Your task to perform on an android device: toggle priority inbox in the gmail app Image 0: 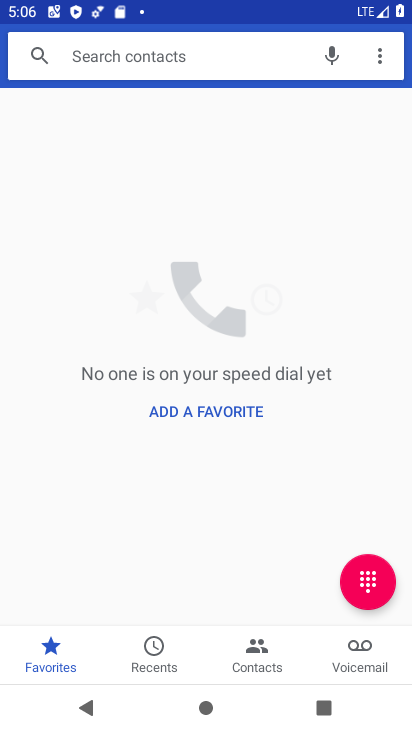
Step 0: press back button
Your task to perform on an android device: toggle priority inbox in the gmail app Image 1: 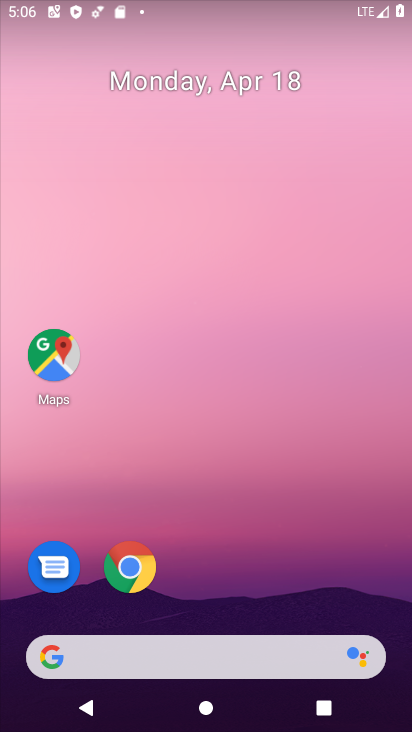
Step 1: drag from (306, 543) to (256, 0)
Your task to perform on an android device: toggle priority inbox in the gmail app Image 2: 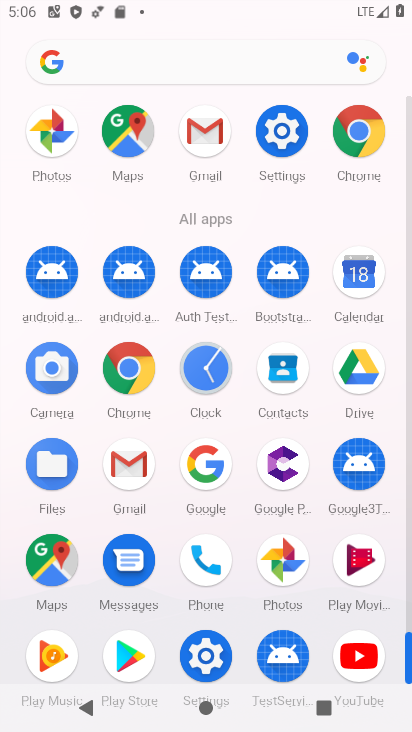
Step 2: click (208, 122)
Your task to perform on an android device: toggle priority inbox in the gmail app Image 3: 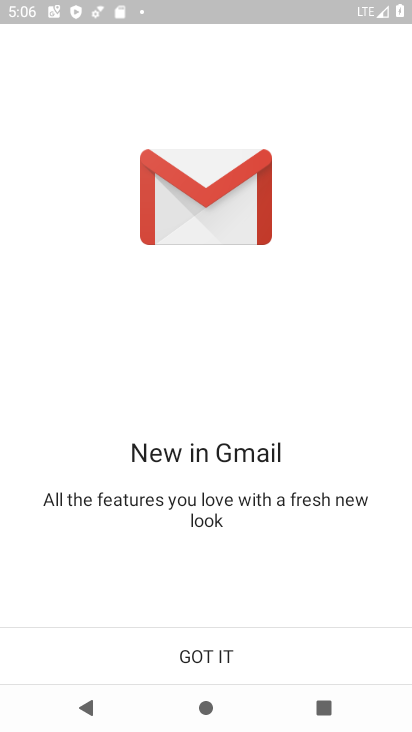
Step 3: click (185, 670)
Your task to perform on an android device: toggle priority inbox in the gmail app Image 4: 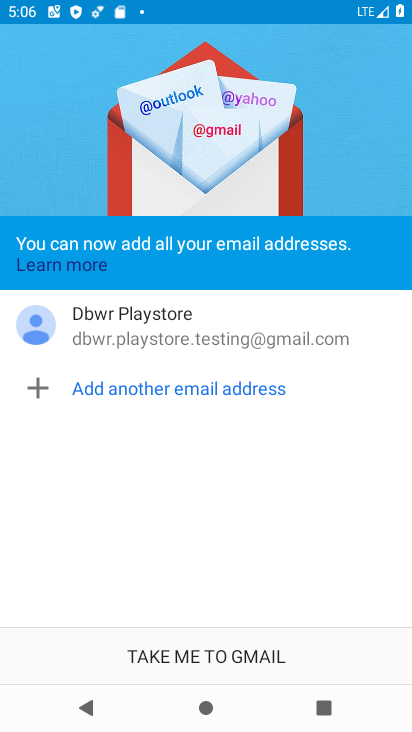
Step 4: click (207, 653)
Your task to perform on an android device: toggle priority inbox in the gmail app Image 5: 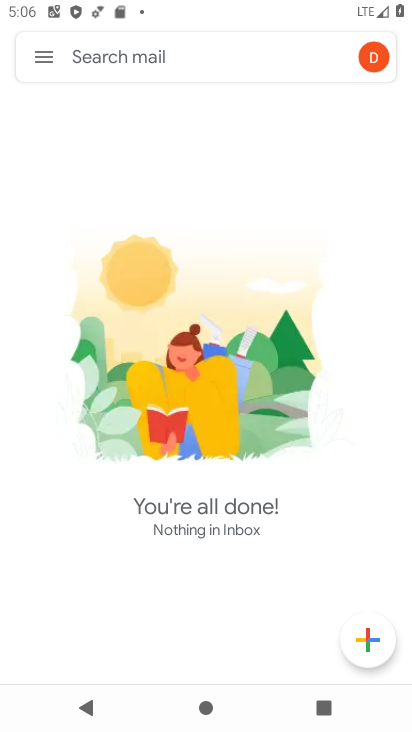
Step 5: click (50, 57)
Your task to perform on an android device: toggle priority inbox in the gmail app Image 6: 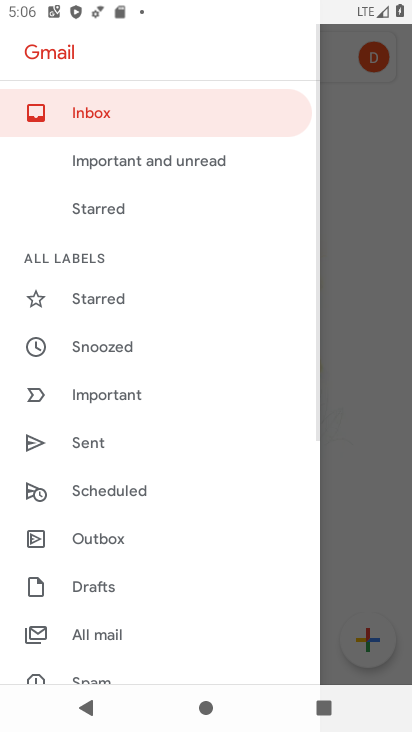
Step 6: drag from (146, 497) to (165, 136)
Your task to perform on an android device: toggle priority inbox in the gmail app Image 7: 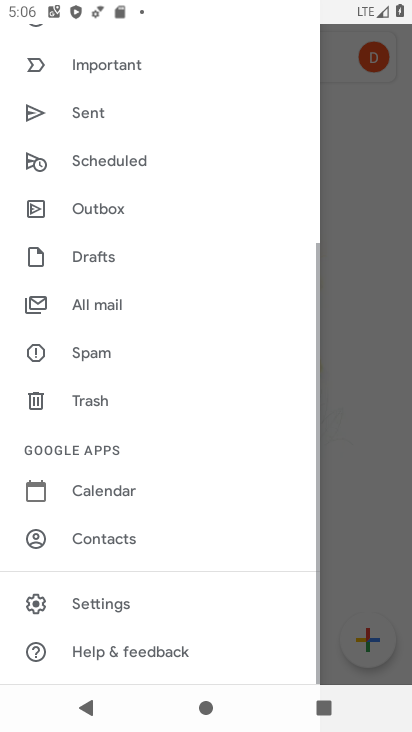
Step 7: drag from (169, 184) to (170, 129)
Your task to perform on an android device: toggle priority inbox in the gmail app Image 8: 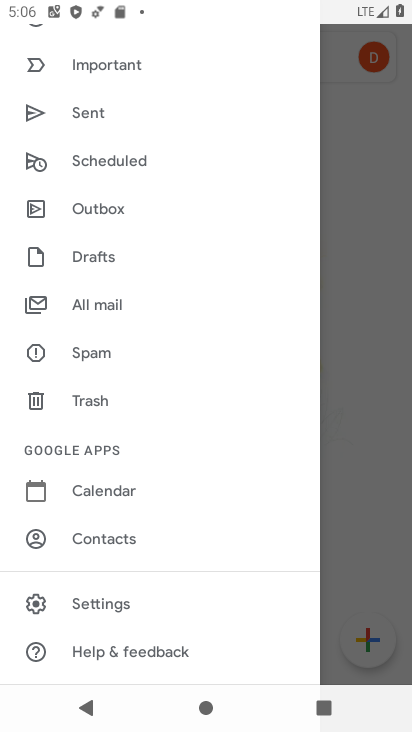
Step 8: click (101, 598)
Your task to perform on an android device: toggle priority inbox in the gmail app Image 9: 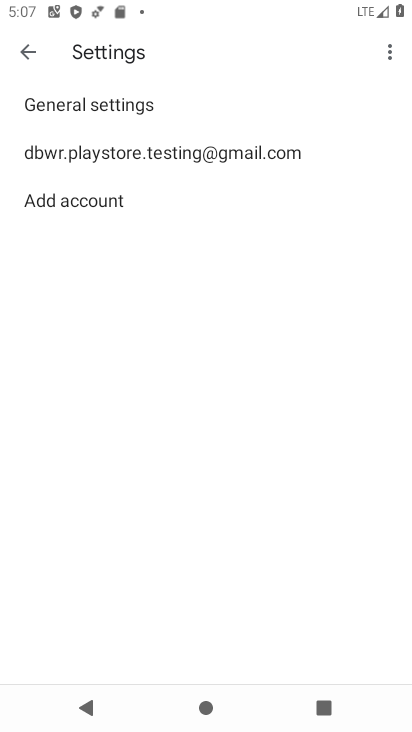
Step 9: click (155, 156)
Your task to perform on an android device: toggle priority inbox in the gmail app Image 10: 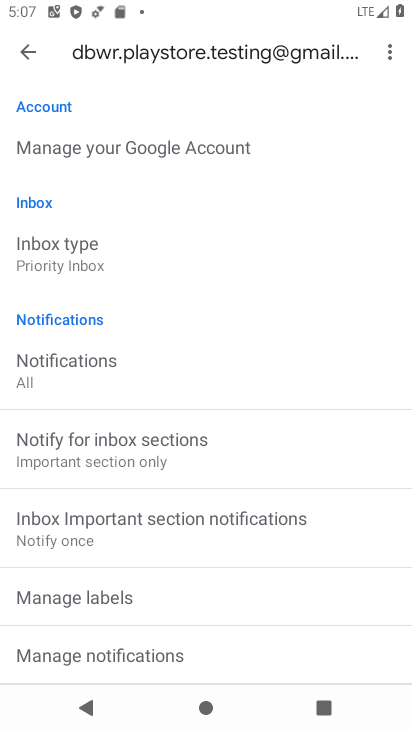
Step 10: drag from (279, 537) to (272, 112)
Your task to perform on an android device: toggle priority inbox in the gmail app Image 11: 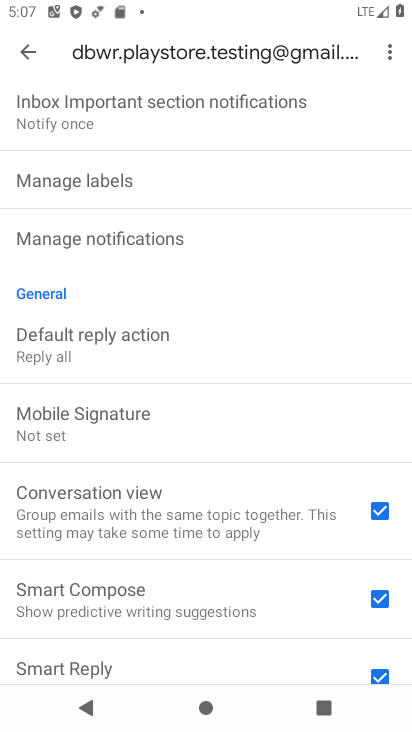
Step 11: drag from (230, 191) to (237, 483)
Your task to perform on an android device: toggle priority inbox in the gmail app Image 12: 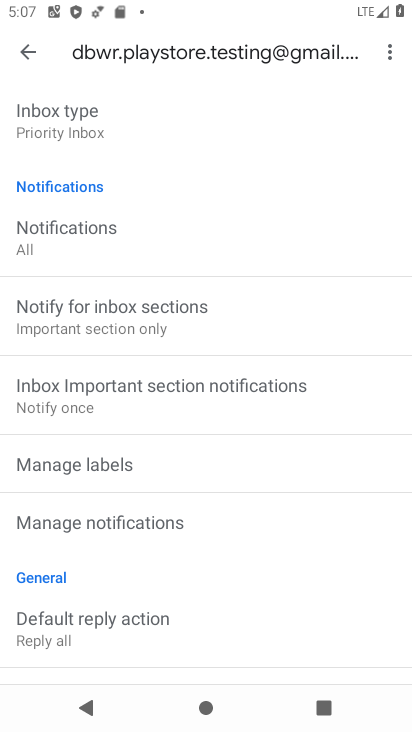
Step 12: drag from (209, 159) to (217, 451)
Your task to perform on an android device: toggle priority inbox in the gmail app Image 13: 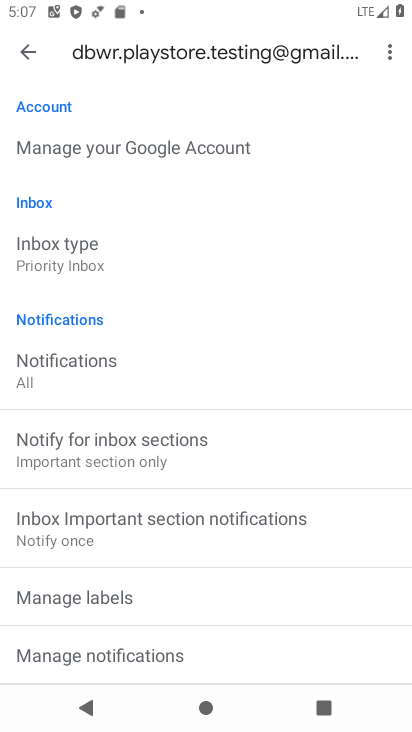
Step 13: click (122, 246)
Your task to perform on an android device: toggle priority inbox in the gmail app Image 14: 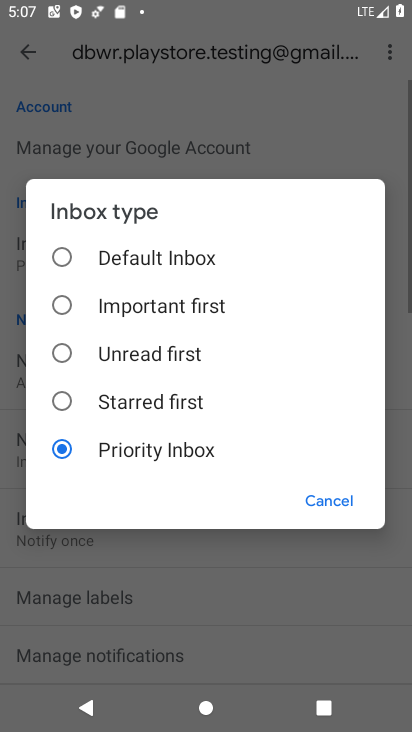
Step 14: click (151, 254)
Your task to perform on an android device: toggle priority inbox in the gmail app Image 15: 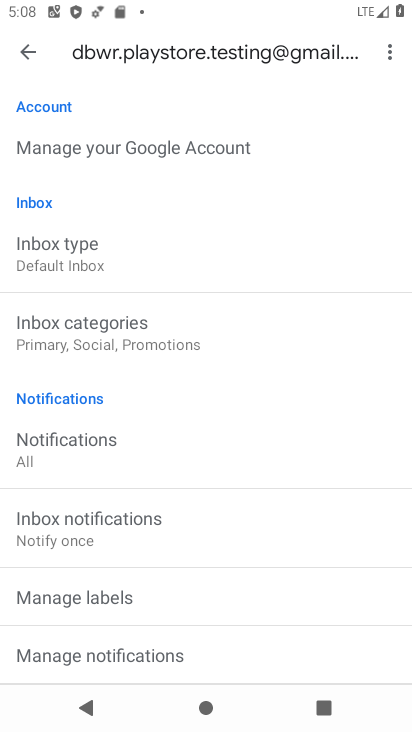
Step 15: task complete